Your task to perform on an android device: open app "Walmart Shopping & Grocery" (install if not already installed) Image 0: 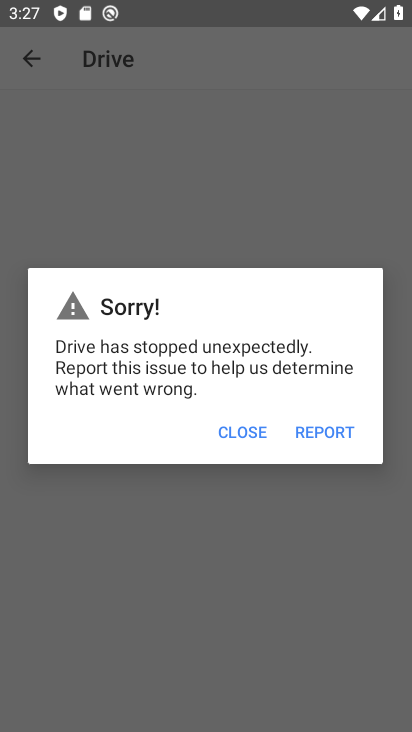
Step 0: press home button
Your task to perform on an android device: open app "Walmart Shopping & Grocery" (install if not already installed) Image 1: 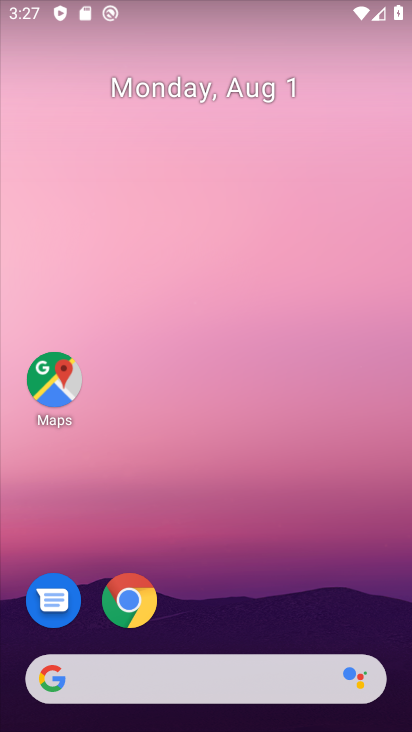
Step 1: drag from (265, 628) to (249, 76)
Your task to perform on an android device: open app "Walmart Shopping & Grocery" (install if not already installed) Image 2: 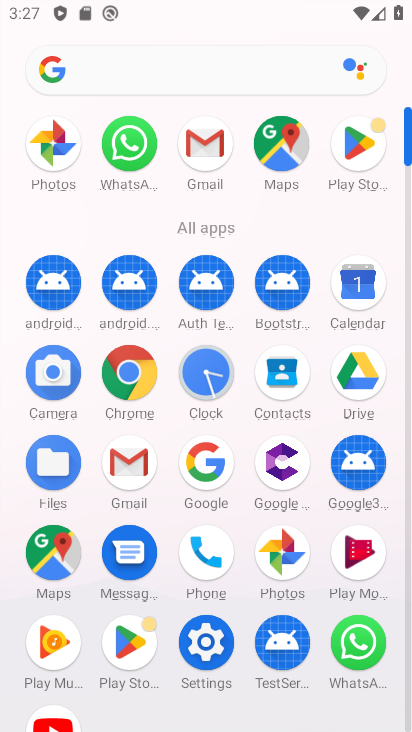
Step 2: click (370, 155)
Your task to perform on an android device: open app "Walmart Shopping & Grocery" (install if not already installed) Image 3: 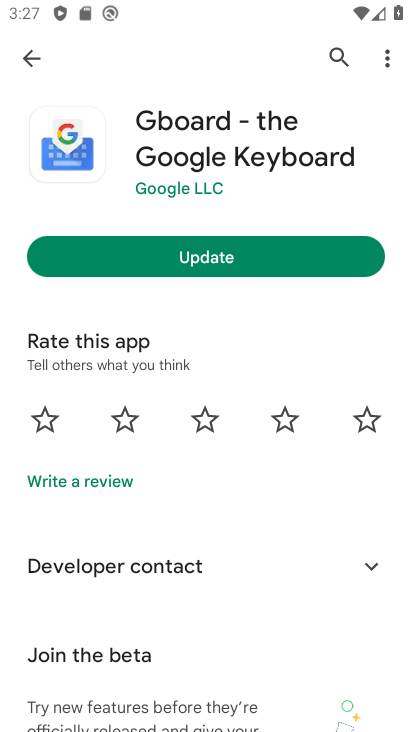
Step 3: click (330, 54)
Your task to perform on an android device: open app "Walmart Shopping & Grocery" (install if not already installed) Image 4: 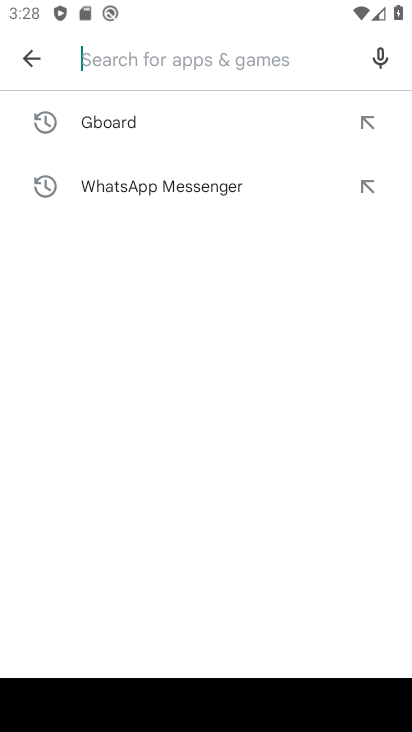
Step 4: type "Walmart Shopping & Grocery"
Your task to perform on an android device: open app "Walmart Shopping & Grocery" (install if not already installed) Image 5: 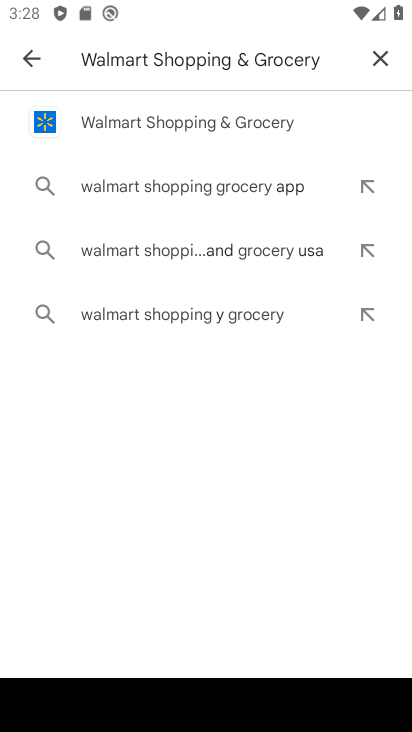
Step 5: click (240, 129)
Your task to perform on an android device: open app "Walmart Shopping & Grocery" (install if not already installed) Image 6: 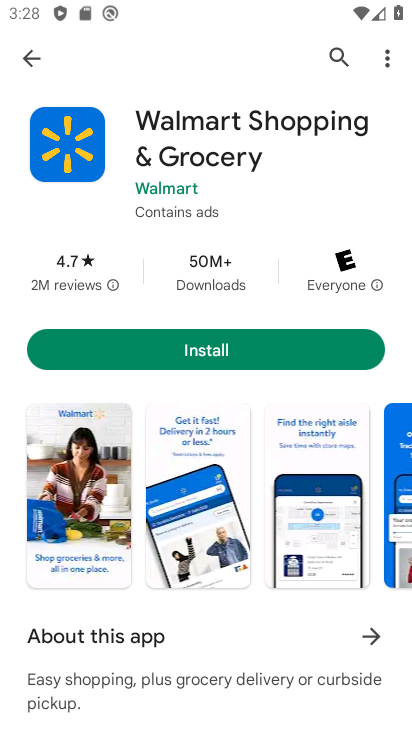
Step 6: click (276, 354)
Your task to perform on an android device: open app "Walmart Shopping & Grocery" (install if not already installed) Image 7: 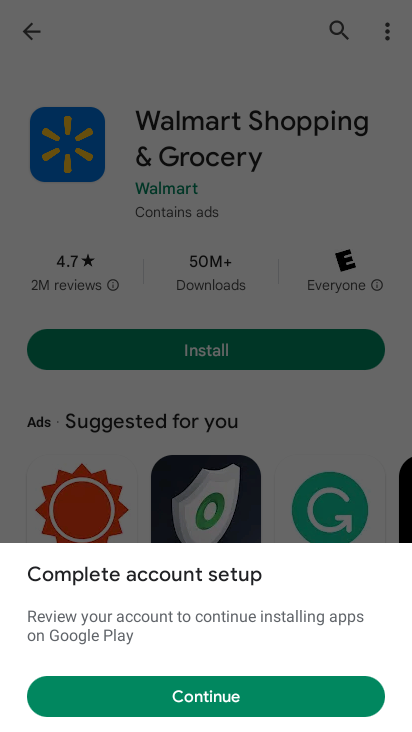
Step 7: click (259, 696)
Your task to perform on an android device: open app "Walmart Shopping & Grocery" (install if not already installed) Image 8: 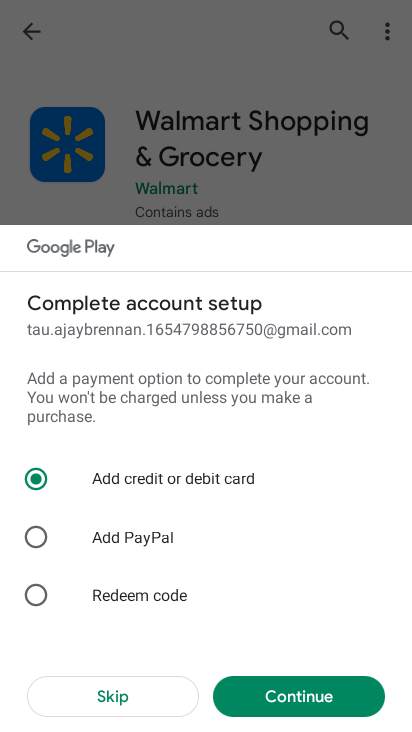
Step 8: click (98, 690)
Your task to perform on an android device: open app "Walmart Shopping & Grocery" (install if not already installed) Image 9: 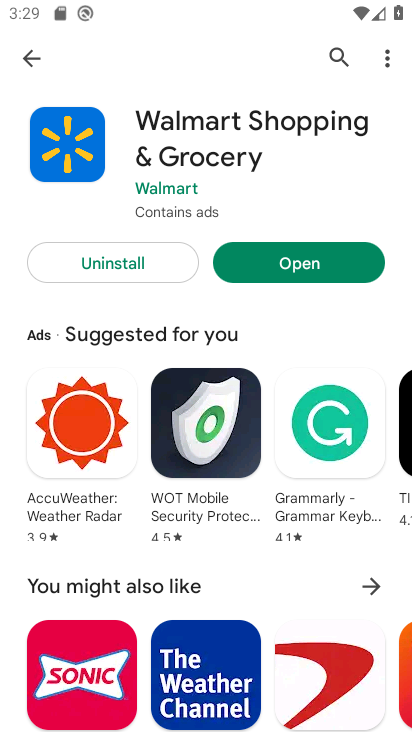
Step 9: click (298, 266)
Your task to perform on an android device: open app "Walmart Shopping & Grocery" (install if not already installed) Image 10: 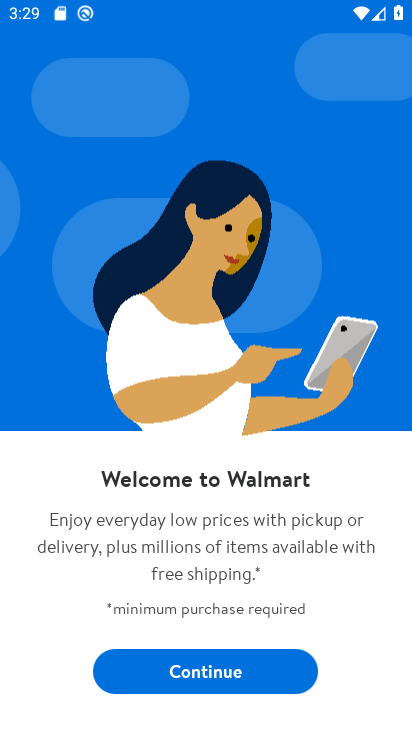
Step 10: task complete